Your task to perform on an android device: search for starred emails in the gmail app Image 0: 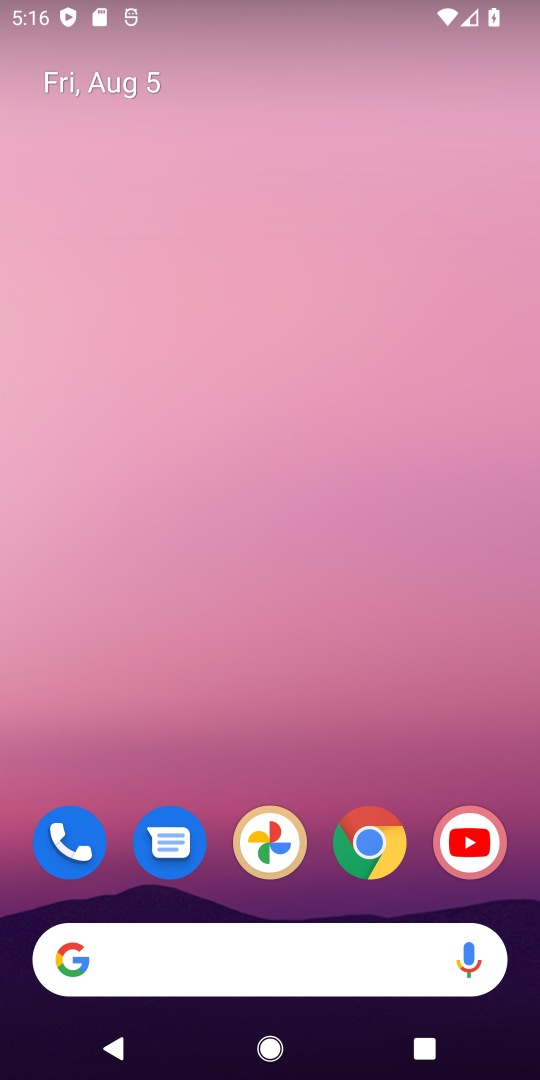
Step 0: press home button
Your task to perform on an android device: search for starred emails in the gmail app Image 1: 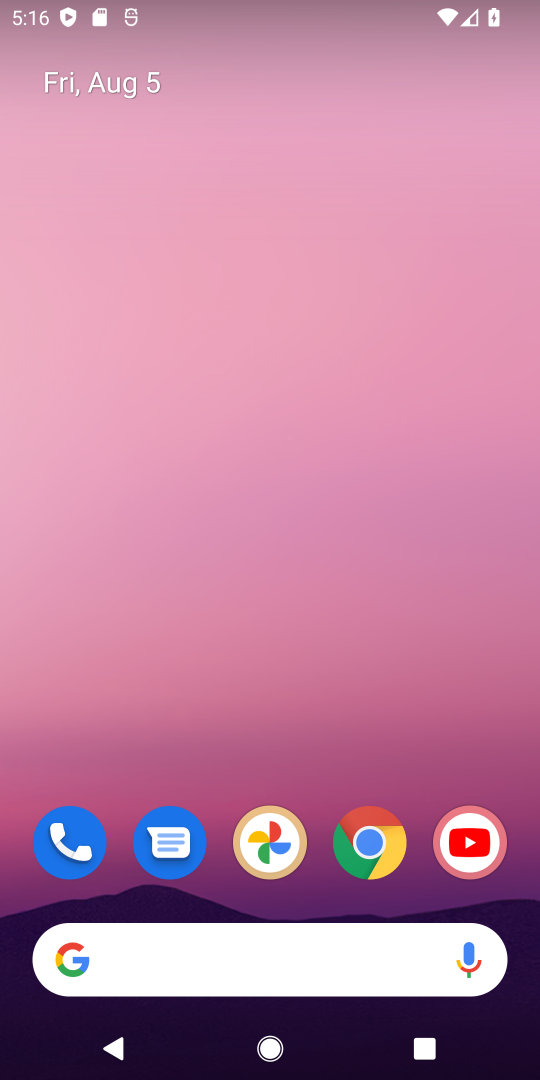
Step 1: drag from (291, 719) to (262, 8)
Your task to perform on an android device: search for starred emails in the gmail app Image 2: 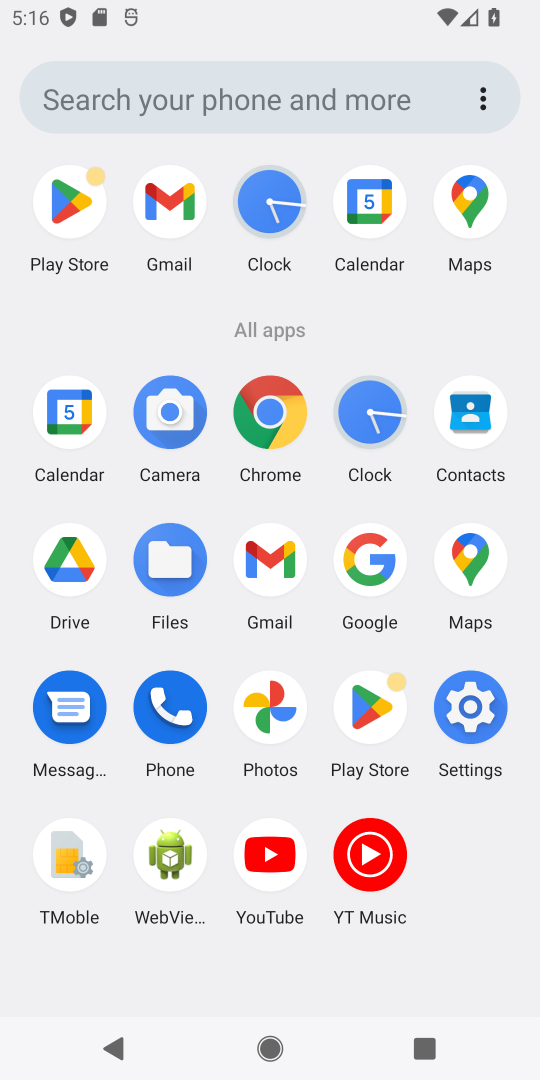
Step 2: click (184, 189)
Your task to perform on an android device: search for starred emails in the gmail app Image 3: 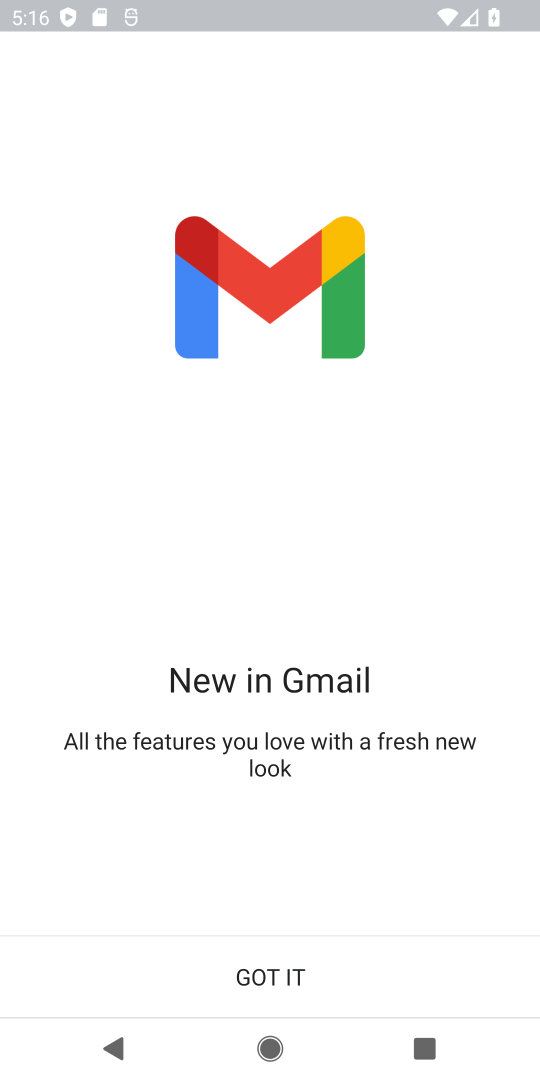
Step 3: click (284, 984)
Your task to perform on an android device: search for starred emails in the gmail app Image 4: 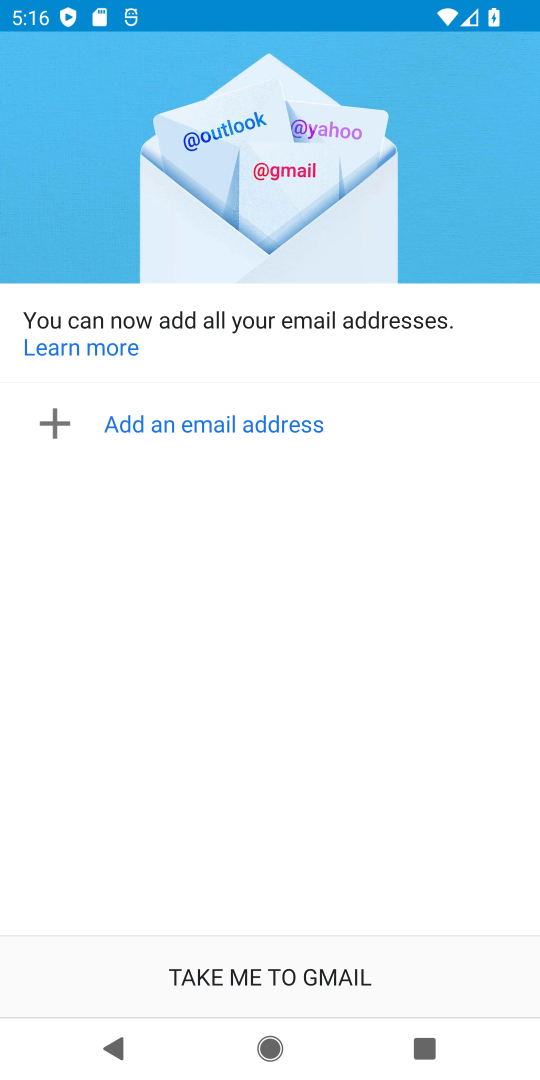
Step 4: click (232, 973)
Your task to perform on an android device: search for starred emails in the gmail app Image 5: 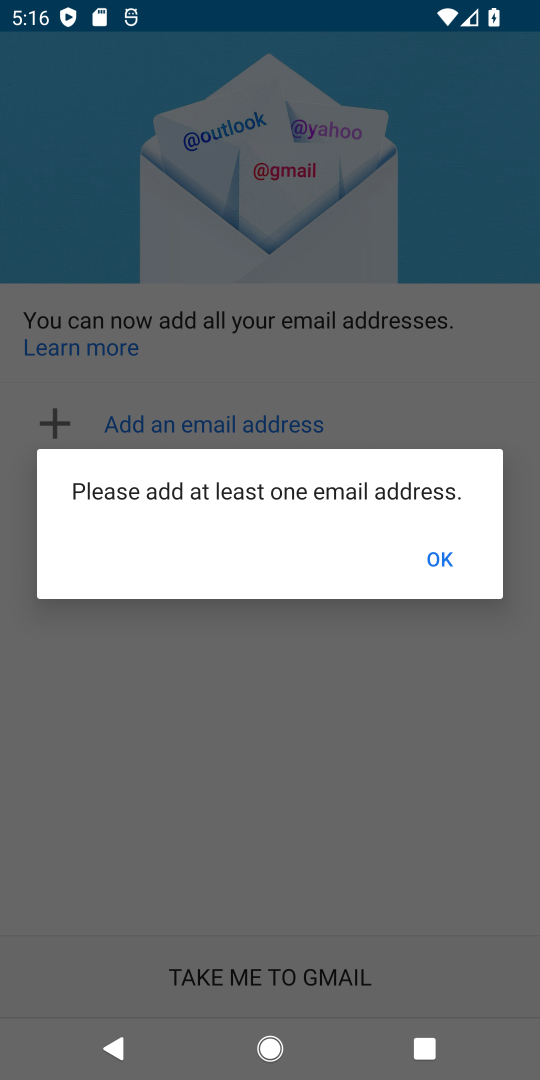
Step 5: task complete